Your task to perform on an android device: add a contact in the contacts app Image 0: 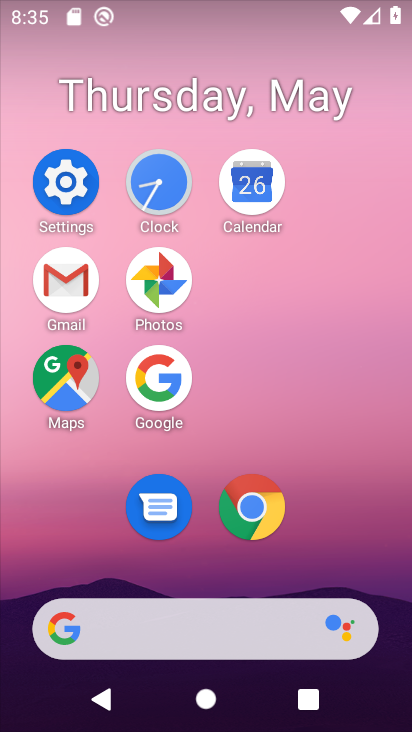
Step 0: drag from (347, 235) to (353, 139)
Your task to perform on an android device: add a contact in the contacts app Image 1: 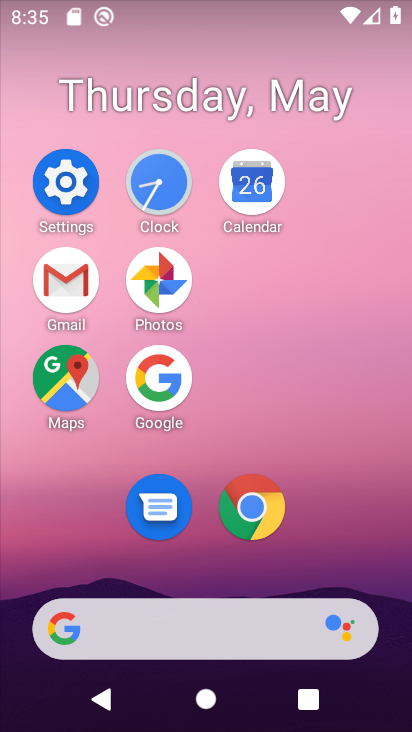
Step 1: drag from (320, 516) to (311, 139)
Your task to perform on an android device: add a contact in the contacts app Image 2: 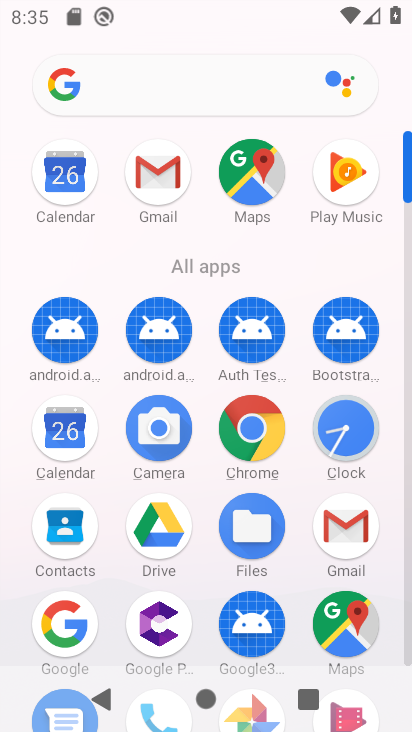
Step 2: click (70, 518)
Your task to perform on an android device: add a contact in the contacts app Image 3: 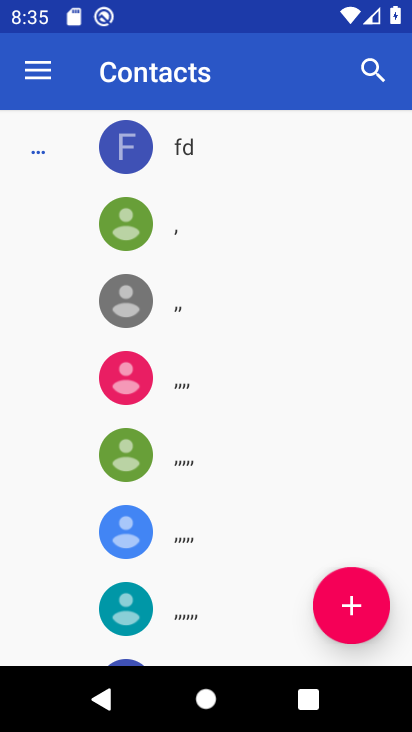
Step 3: click (354, 586)
Your task to perform on an android device: add a contact in the contacts app Image 4: 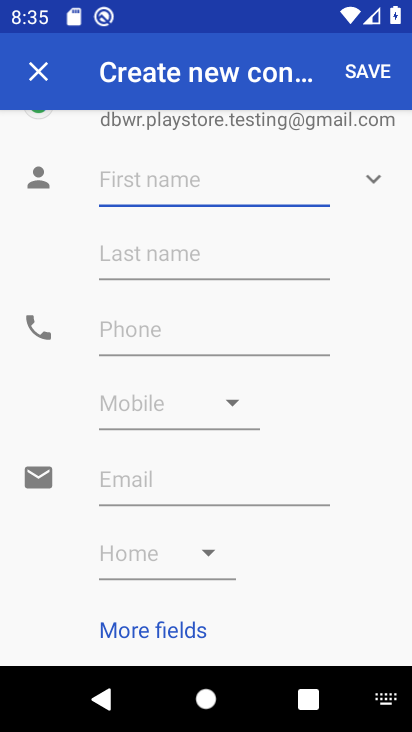
Step 4: type "ttvt"
Your task to perform on an android device: add a contact in the contacts app Image 5: 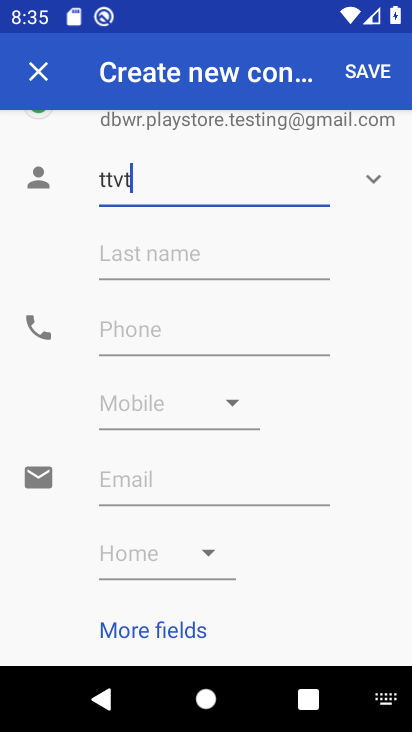
Step 5: click (143, 349)
Your task to perform on an android device: add a contact in the contacts app Image 6: 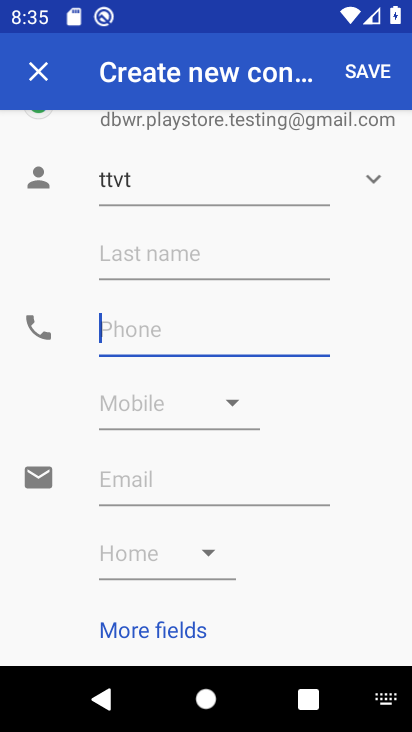
Step 6: type "8877665543"
Your task to perform on an android device: add a contact in the contacts app Image 7: 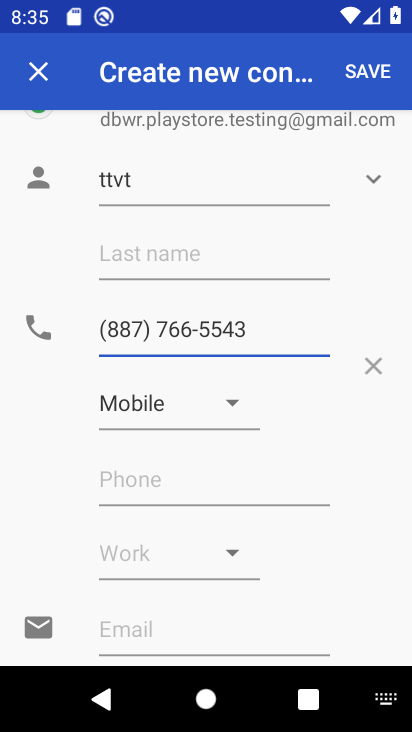
Step 7: click (376, 76)
Your task to perform on an android device: add a contact in the contacts app Image 8: 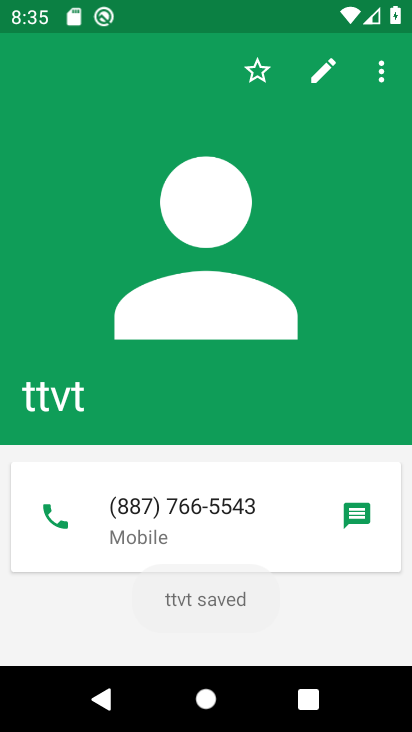
Step 8: task complete